Your task to perform on an android device: Open Google Maps Image 0: 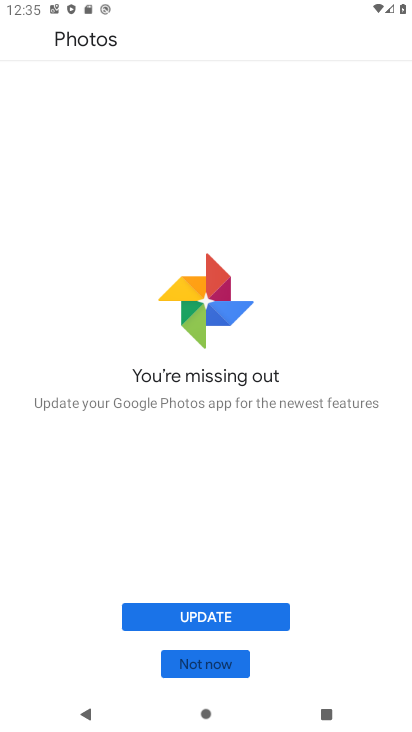
Step 0: press home button
Your task to perform on an android device: Open Google Maps Image 1: 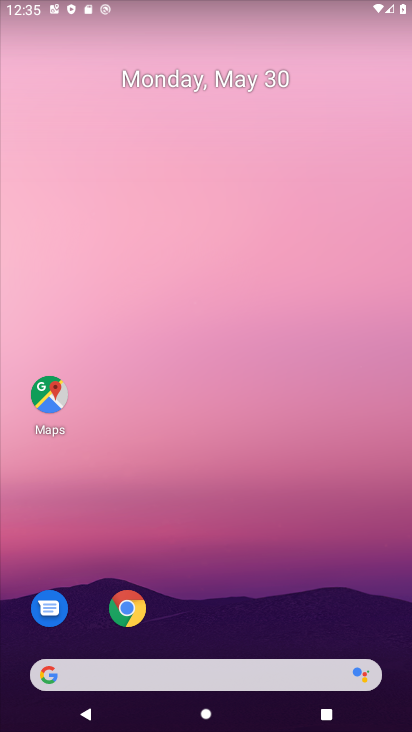
Step 1: click (55, 393)
Your task to perform on an android device: Open Google Maps Image 2: 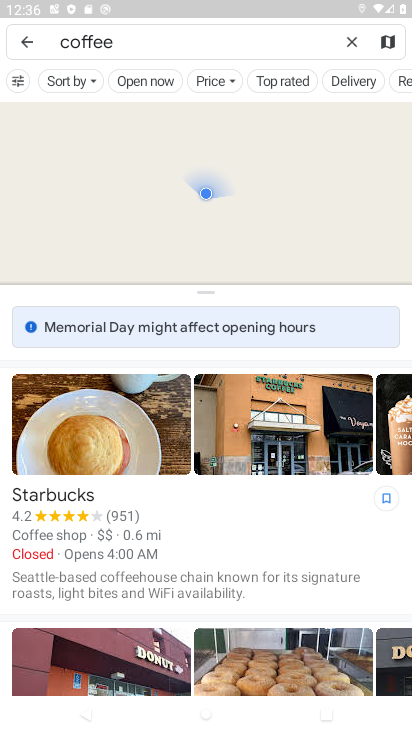
Step 2: task complete